Your task to perform on an android device: Go to Maps Image 0: 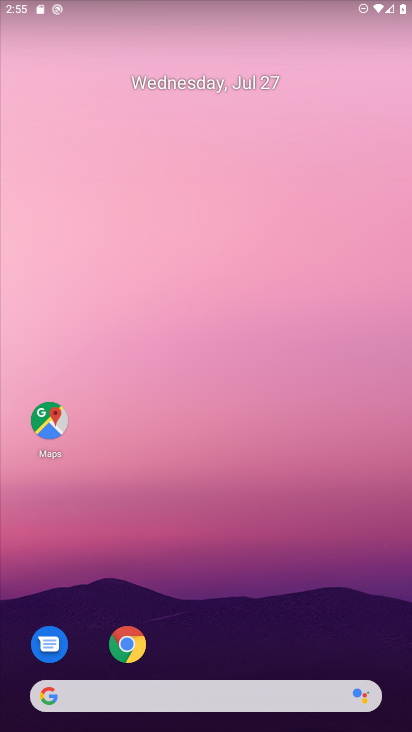
Step 0: click (48, 412)
Your task to perform on an android device: Go to Maps Image 1: 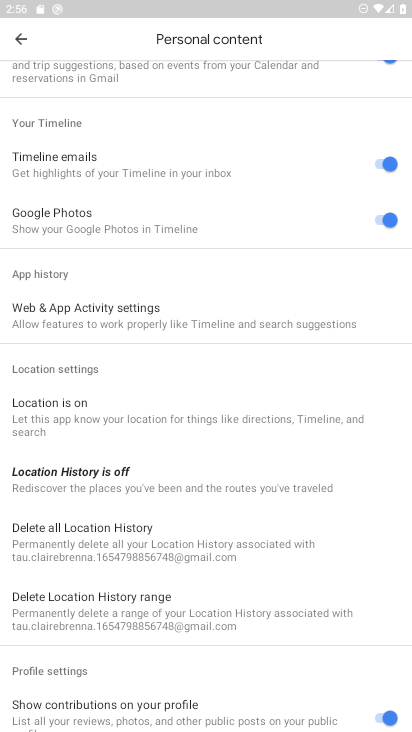
Step 1: click (24, 36)
Your task to perform on an android device: Go to Maps Image 2: 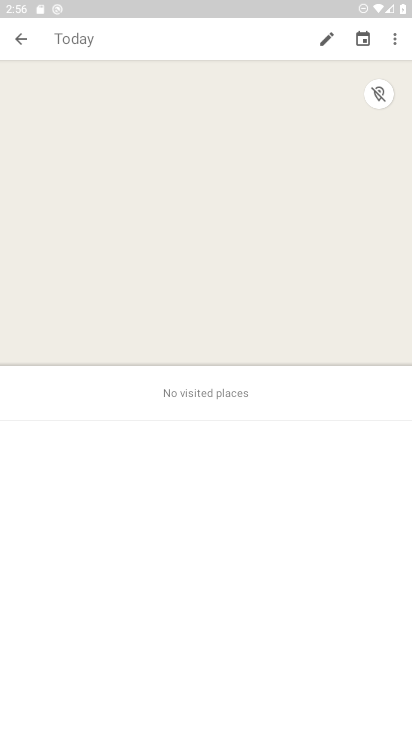
Step 2: click (17, 44)
Your task to perform on an android device: Go to Maps Image 3: 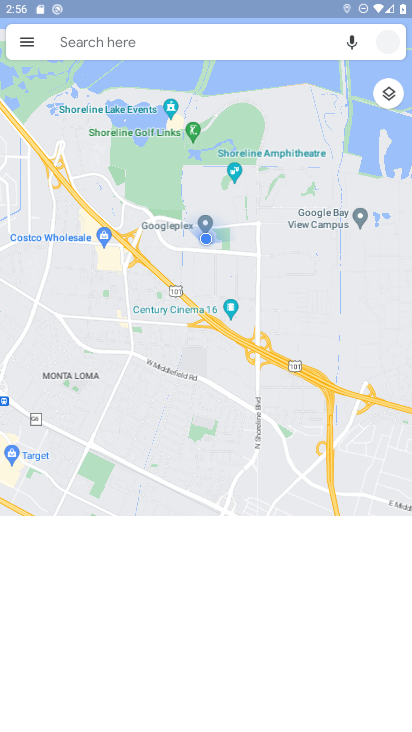
Step 3: click (21, 43)
Your task to perform on an android device: Go to Maps Image 4: 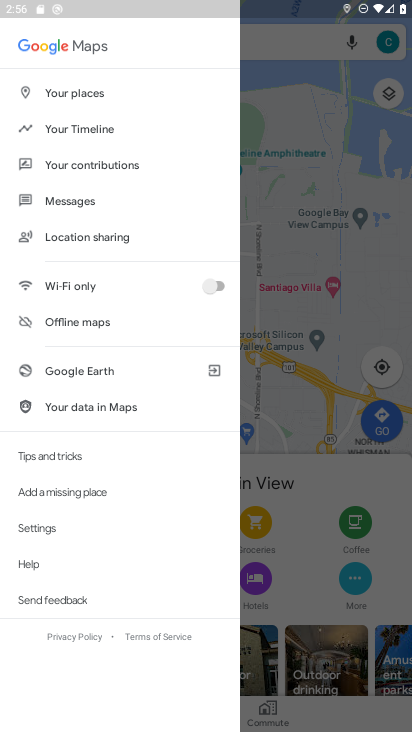
Step 4: task complete